Your task to perform on an android device: toggle data saver in the chrome app Image 0: 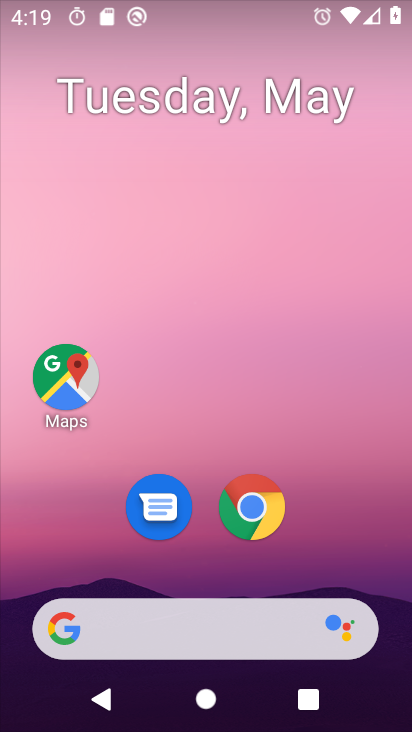
Step 0: click (260, 500)
Your task to perform on an android device: toggle data saver in the chrome app Image 1: 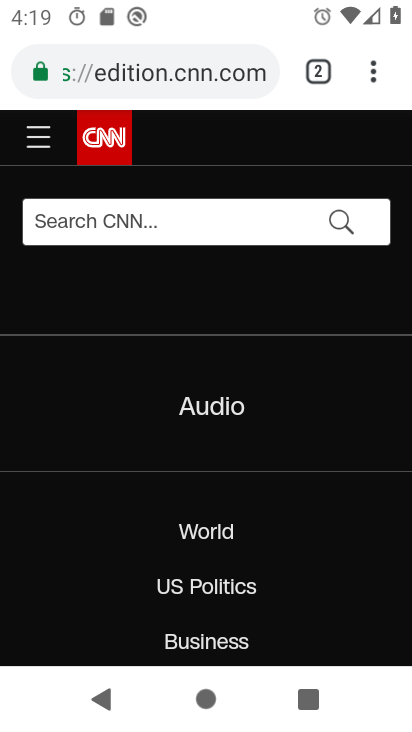
Step 1: click (375, 80)
Your task to perform on an android device: toggle data saver in the chrome app Image 2: 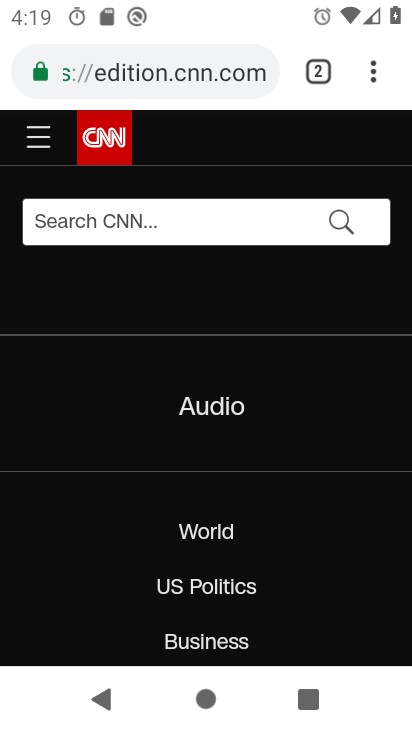
Step 2: click (375, 83)
Your task to perform on an android device: toggle data saver in the chrome app Image 3: 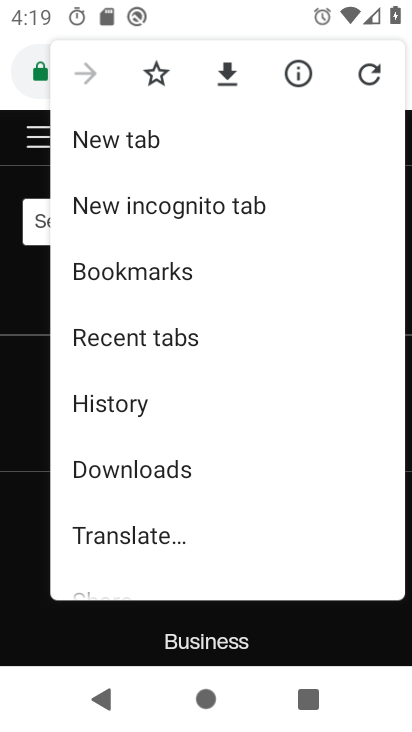
Step 3: click (98, 561)
Your task to perform on an android device: toggle data saver in the chrome app Image 4: 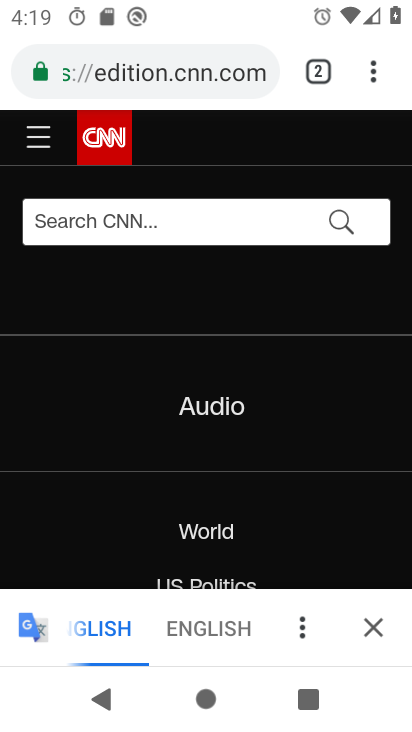
Step 4: click (361, 75)
Your task to perform on an android device: toggle data saver in the chrome app Image 5: 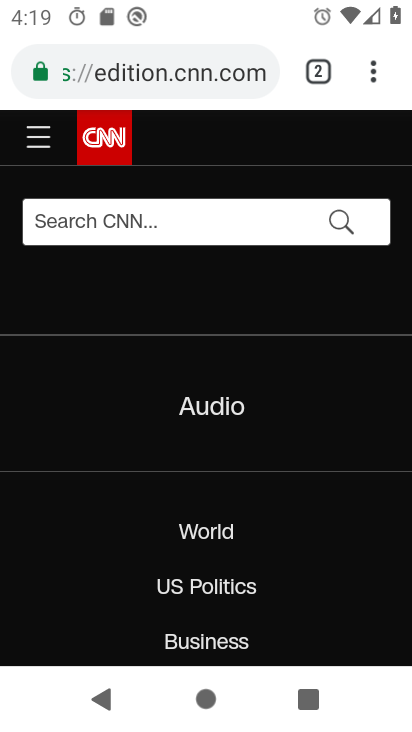
Step 5: click (375, 78)
Your task to perform on an android device: toggle data saver in the chrome app Image 6: 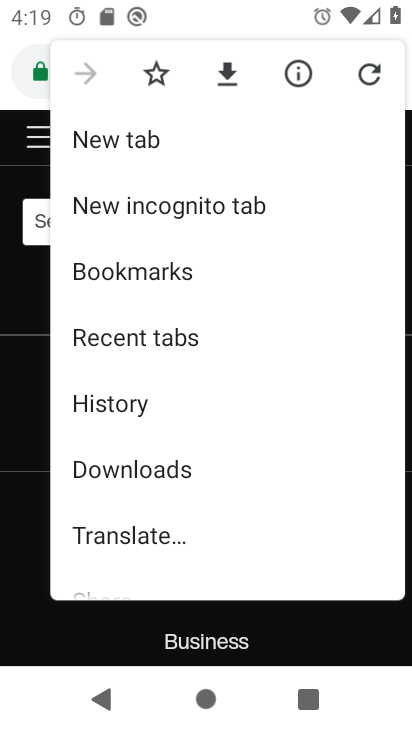
Step 6: drag from (161, 485) to (180, 240)
Your task to perform on an android device: toggle data saver in the chrome app Image 7: 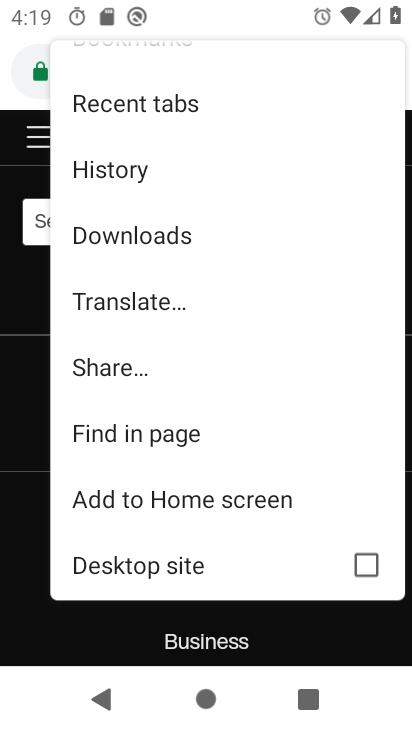
Step 7: drag from (212, 509) to (280, 283)
Your task to perform on an android device: toggle data saver in the chrome app Image 8: 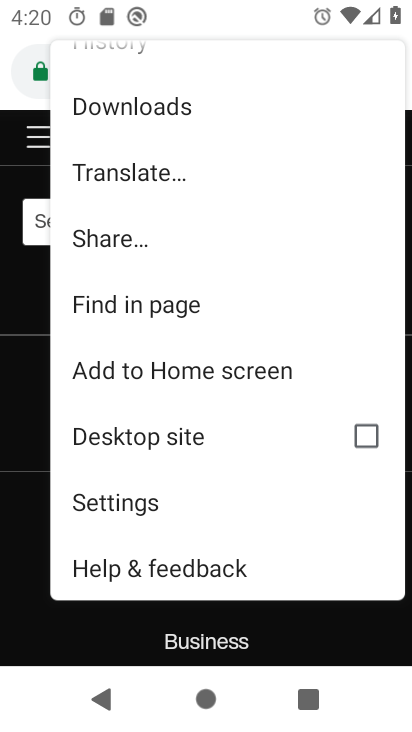
Step 8: click (142, 515)
Your task to perform on an android device: toggle data saver in the chrome app Image 9: 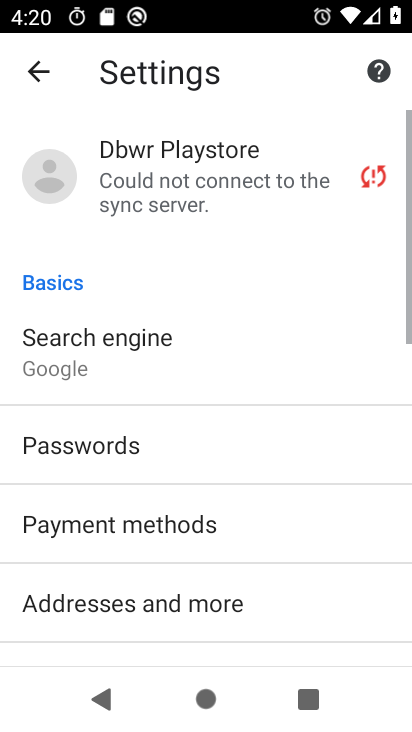
Step 9: drag from (142, 515) to (199, 223)
Your task to perform on an android device: toggle data saver in the chrome app Image 10: 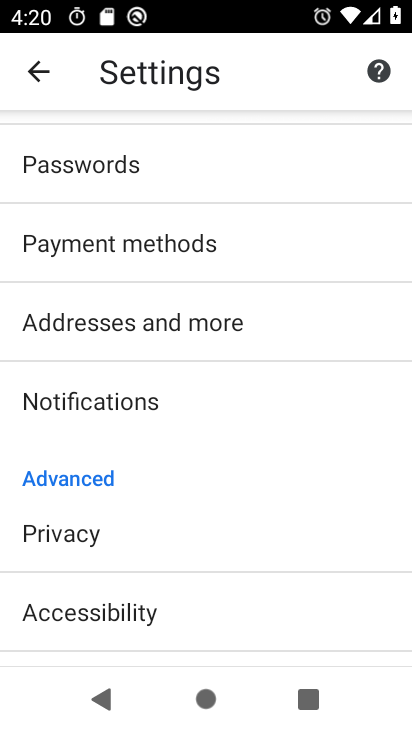
Step 10: drag from (175, 598) to (234, 285)
Your task to perform on an android device: toggle data saver in the chrome app Image 11: 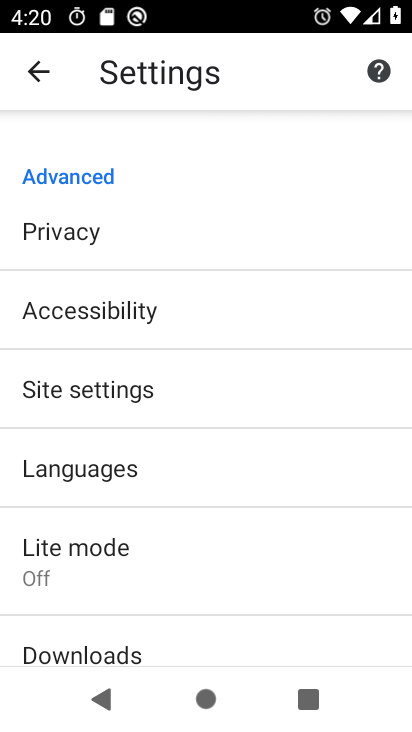
Step 11: click (208, 549)
Your task to perform on an android device: toggle data saver in the chrome app Image 12: 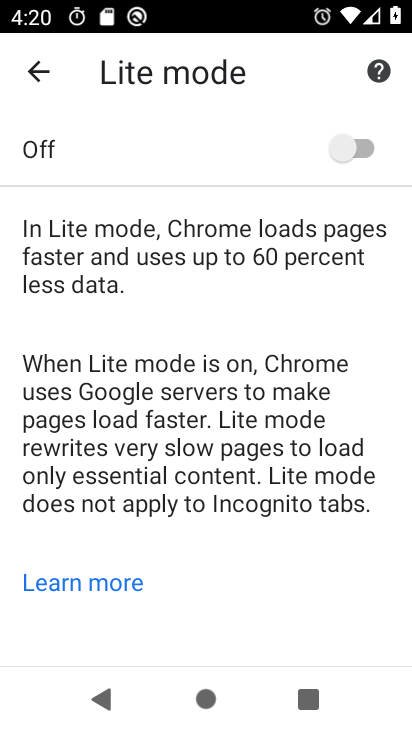
Step 12: click (375, 145)
Your task to perform on an android device: toggle data saver in the chrome app Image 13: 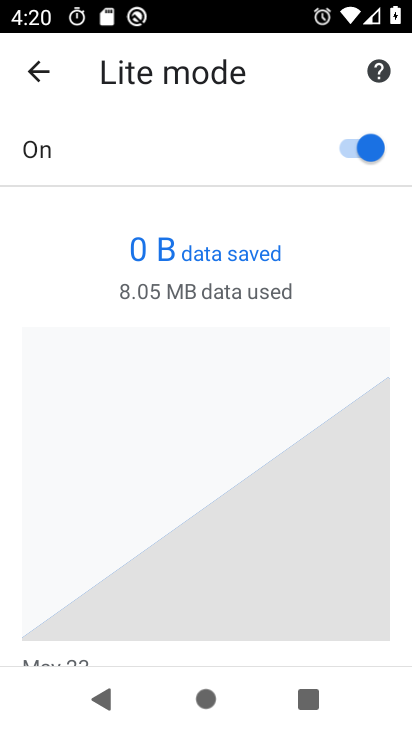
Step 13: task complete